Your task to perform on an android device: toggle location history Image 0: 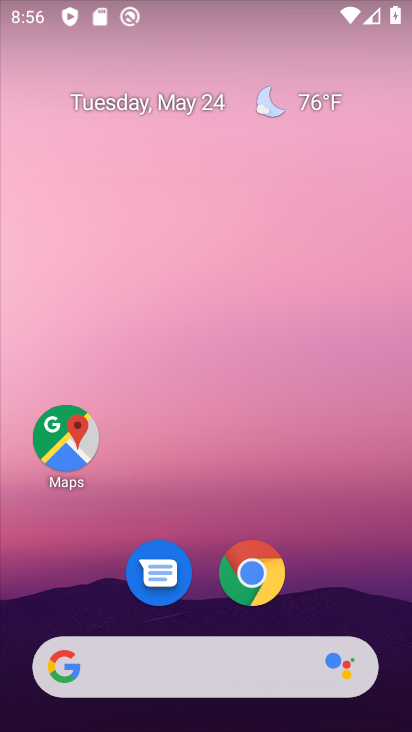
Step 0: drag from (59, 572) to (151, 64)
Your task to perform on an android device: toggle location history Image 1: 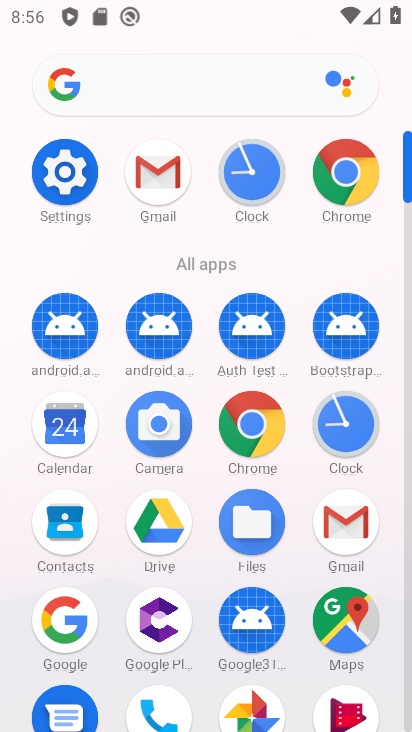
Step 1: drag from (66, 670) to (164, 367)
Your task to perform on an android device: toggle location history Image 2: 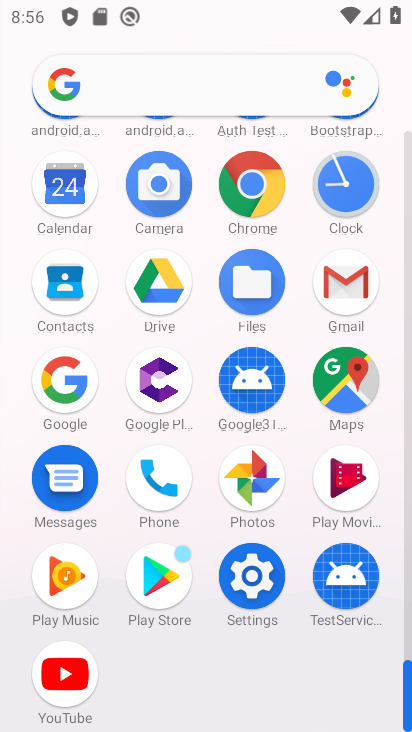
Step 2: click (259, 595)
Your task to perform on an android device: toggle location history Image 3: 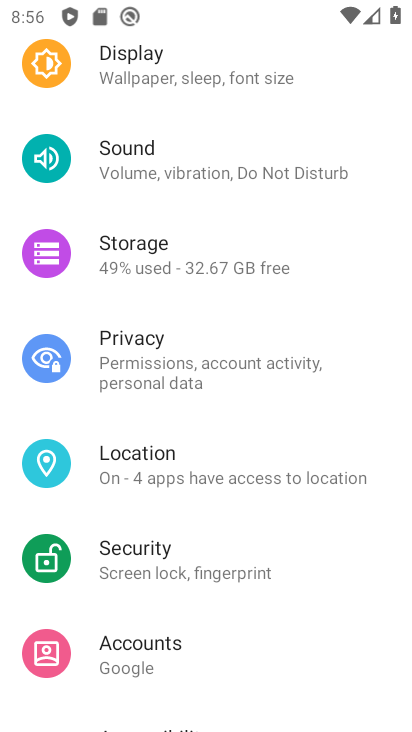
Step 3: click (216, 477)
Your task to perform on an android device: toggle location history Image 4: 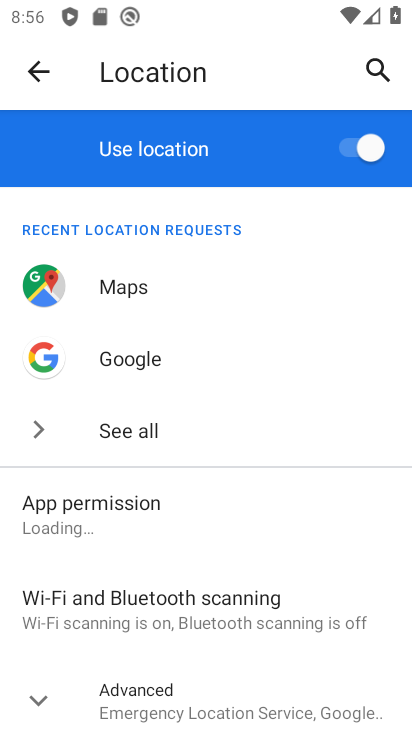
Step 4: drag from (118, 654) to (183, 337)
Your task to perform on an android device: toggle location history Image 5: 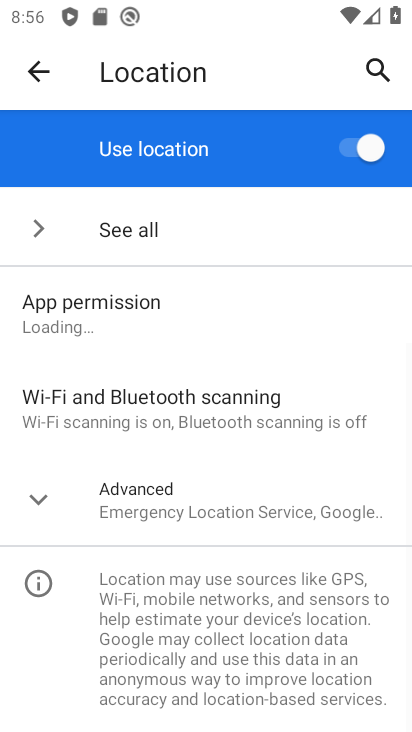
Step 5: click (182, 505)
Your task to perform on an android device: toggle location history Image 6: 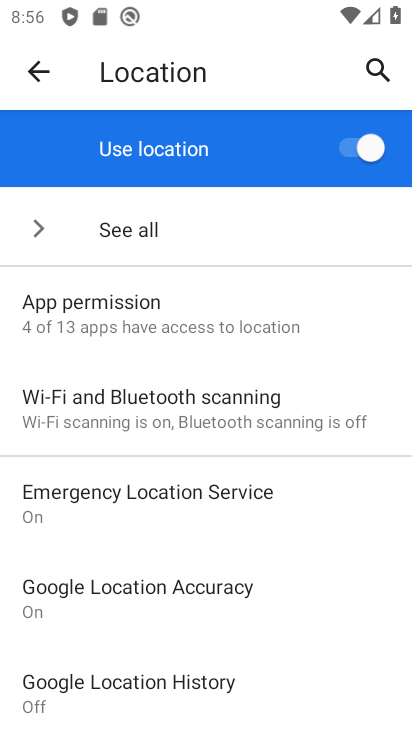
Step 6: click (199, 696)
Your task to perform on an android device: toggle location history Image 7: 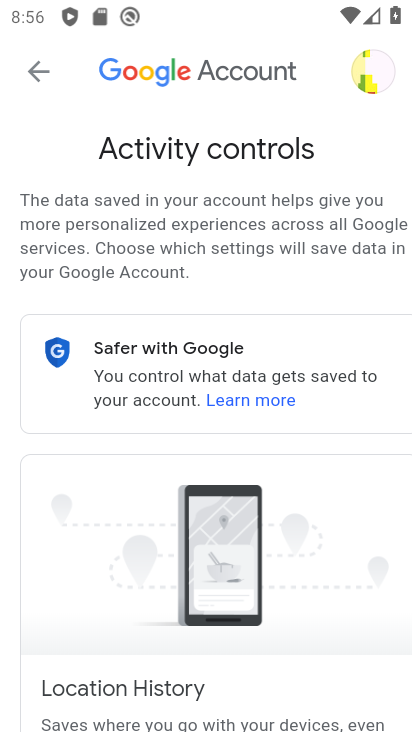
Step 7: drag from (267, 571) to (332, 89)
Your task to perform on an android device: toggle location history Image 8: 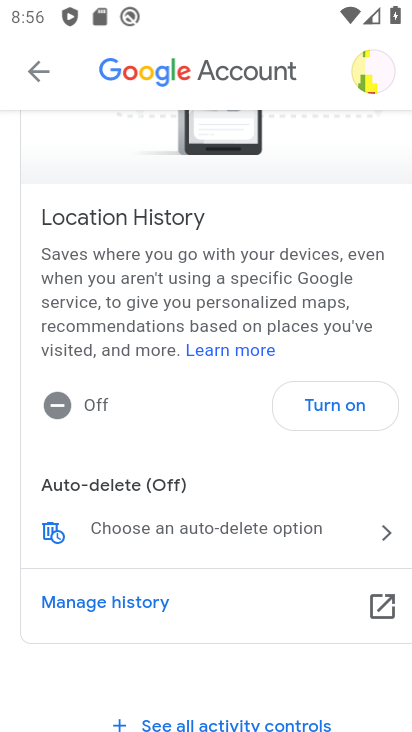
Step 8: click (329, 406)
Your task to perform on an android device: toggle location history Image 9: 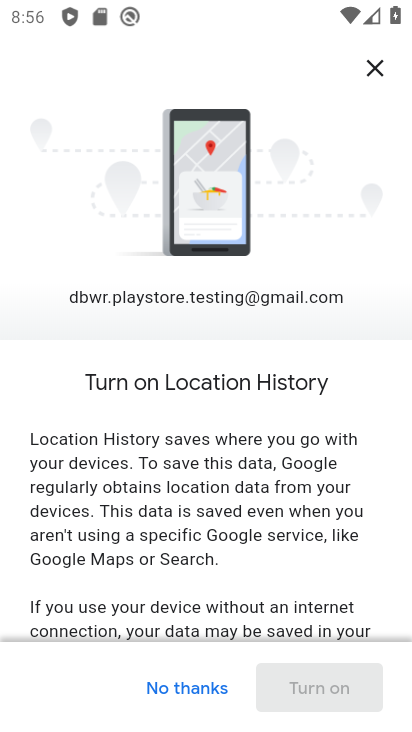
Step 9: drag from (279, 515) to (376, 76)
Your task to perform on an android device: toggle location history Image 10: 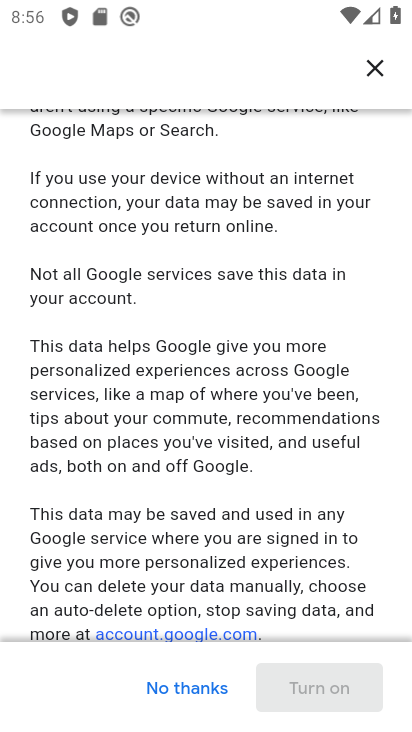
Step 10: drag from (257, 479) to (322, 150)
Your task to perform on an android device: toggle location history Image 11: 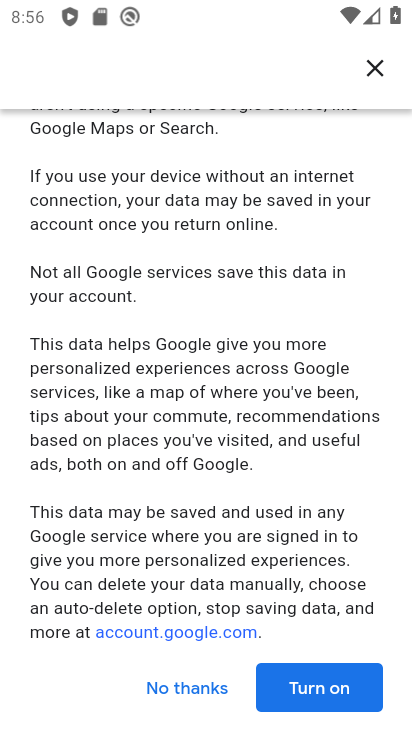
Step 11: click (314, 687)
Your task to perform on an android device: toggle location history Image 12: 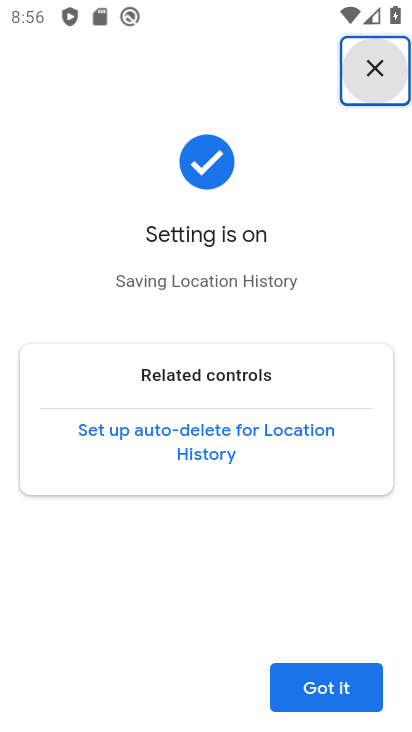
Step 12: click (335, 691)
Your task to perform on an android device: toggle location history Image 13: 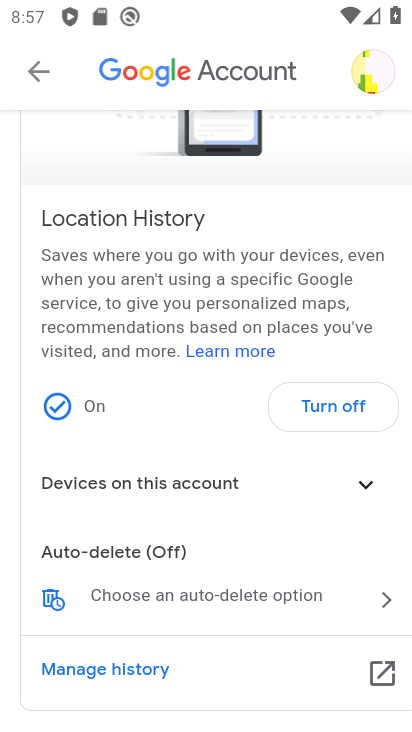
Step 13: task complete